Your task to perform on an android device: Turn off the flashlight Image 0: 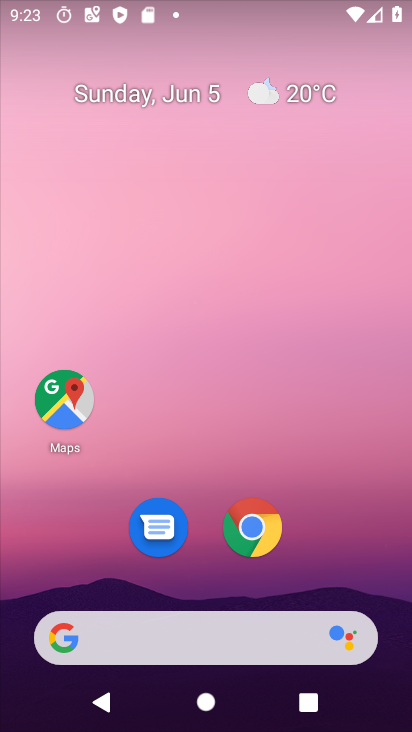
Step 0: drag from (351, 537) to (309, 2)
Your task to perform on an android device: Turn off the flashlight Image 1: 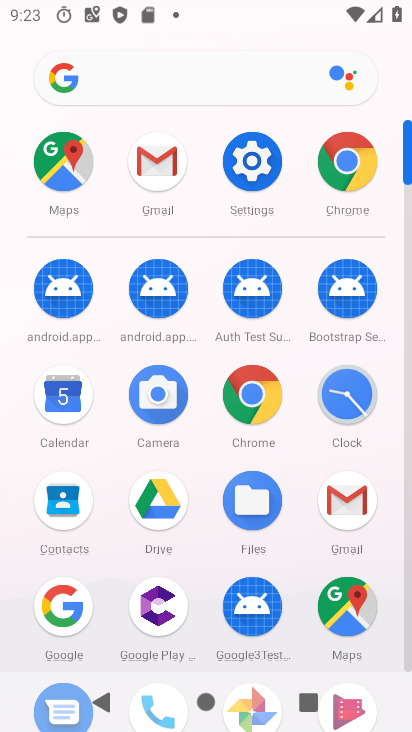
Step 1: click (262, 168)
Your task to perform on an android device: Turn off the flashlight Image 2: 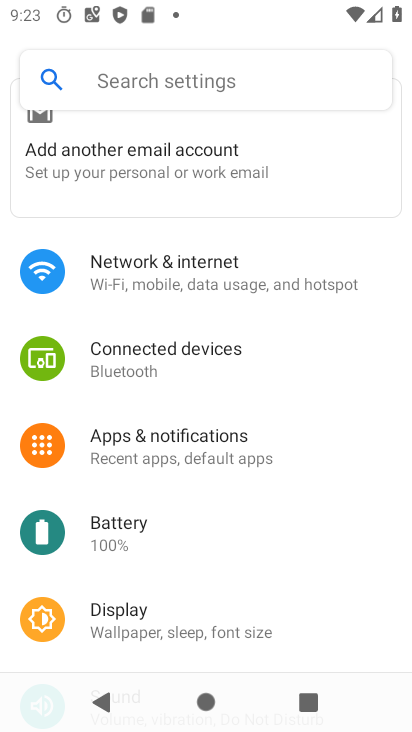
Step 2: task complete